Your task to perform on an android device: install app "Spotify" Image 0: 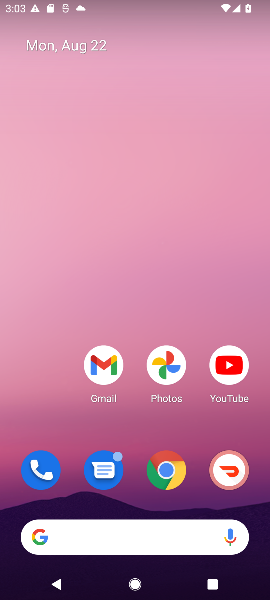
Step 0: drag from (107, 519) to (137, 124)
Your task to perform on an android device: install app "Spotify" Image 1: 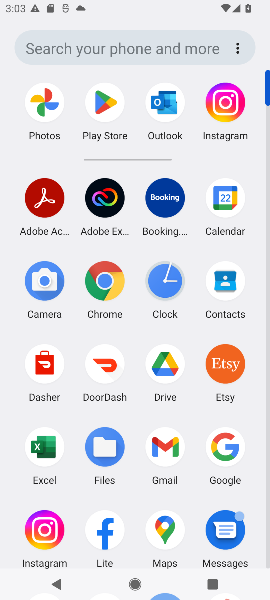
Step 1: click (115, 97)
Your task to perform on an android device: install app "Spotify" Image 2: 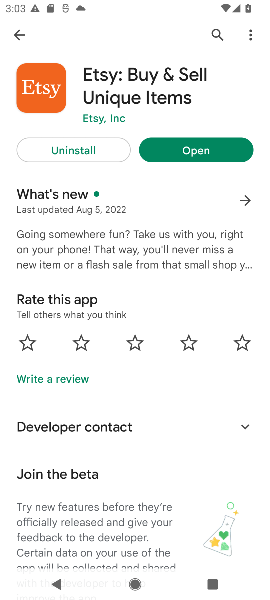
Step 2: click (12, 23)
Your task to perform on an android device: install app "Spotify" Image 3: 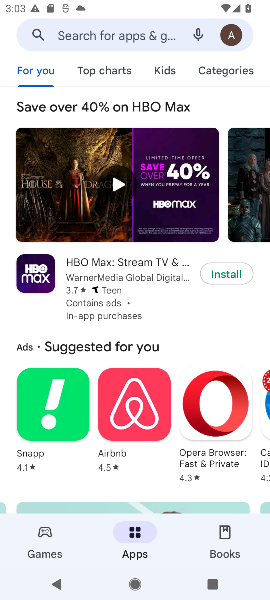
Step 3: click (130, 34)
Your task to perform on an android device: install app "Spotify" Image 4: 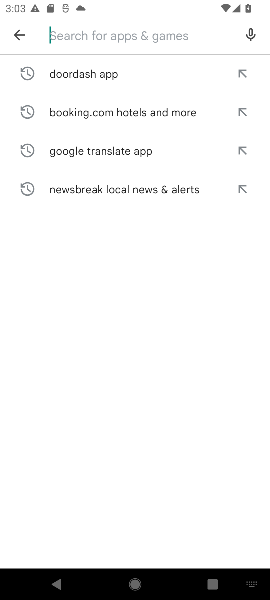
Step 4: type "spotify "
Your task to perform on an android device: install app "Spotify" Image 5: 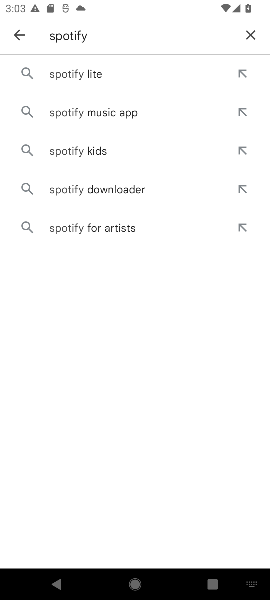
Step 5: click (109, 76)
Your task to perform on an android device: install app "Spotify" Image 6: 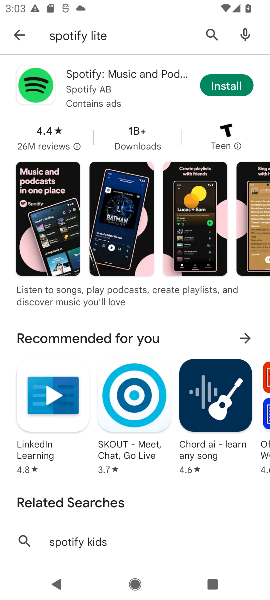
Step 6: click (223, 87)
Your task to perform on an android device: install app "Spotify" Image 7: 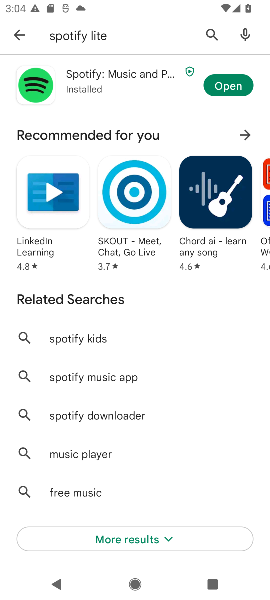
Step 7: click (218, 76)
Your task to perform on an android device: install app "Spotify" Image 8: 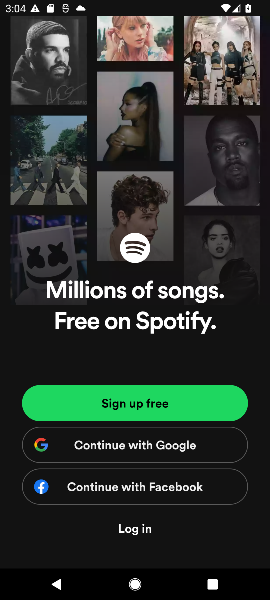
Step 8: task complete